Your task to perform on an android device: change the clock display to analog Image 0: 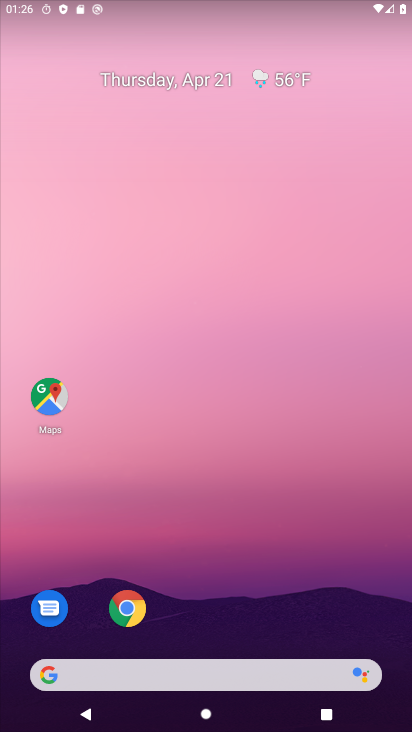
Step 0: drag from (286, 629) to (226, 52)
Your task to perform on an android device: change the clock display to analog Image 1: 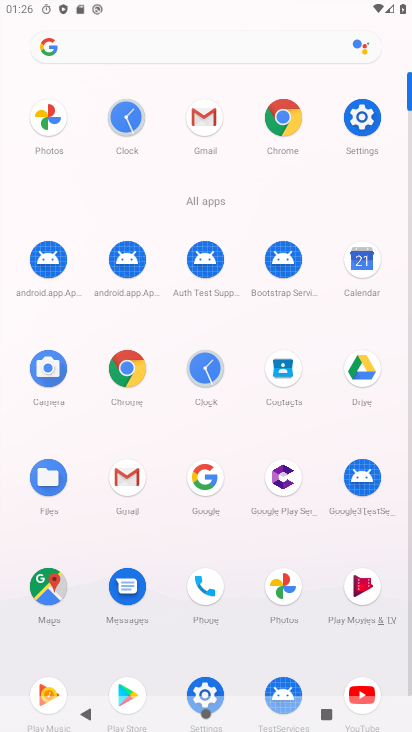
Step 1: click (131, 119)
Your task to perform on an android device: change the clock display to analog Image 2: 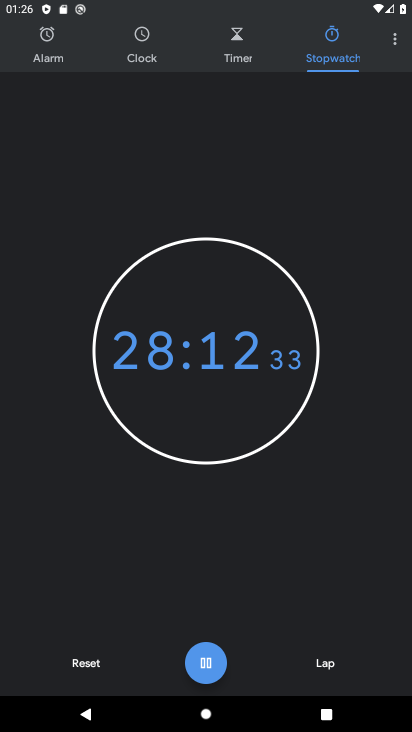
Step 2: click (392, 42)
Your task to perform on an android device: change the clock display to analog Image 3: 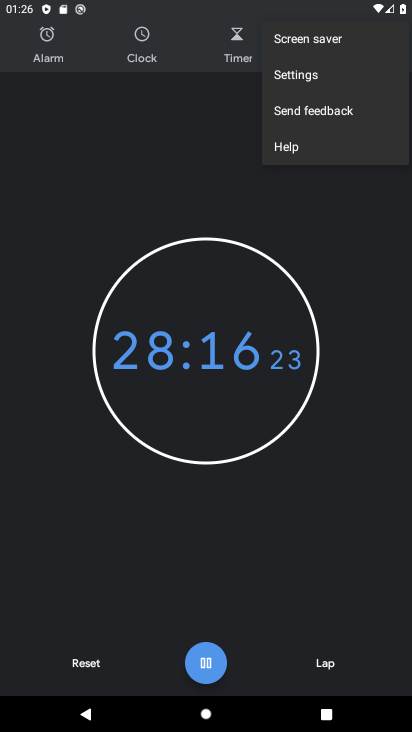
Step 3: click (292, 84)
Your task to perform on an android device: change the clock display to analog Image 4: 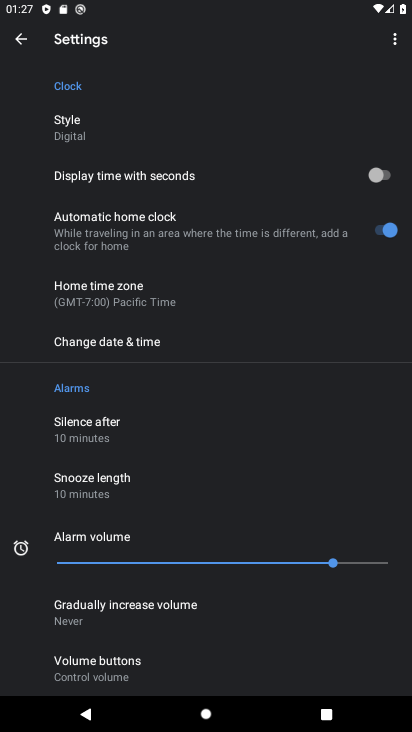
Step 4: click (78, 144)
Your task to perform on an android device: change the clock display to analog Image 5: 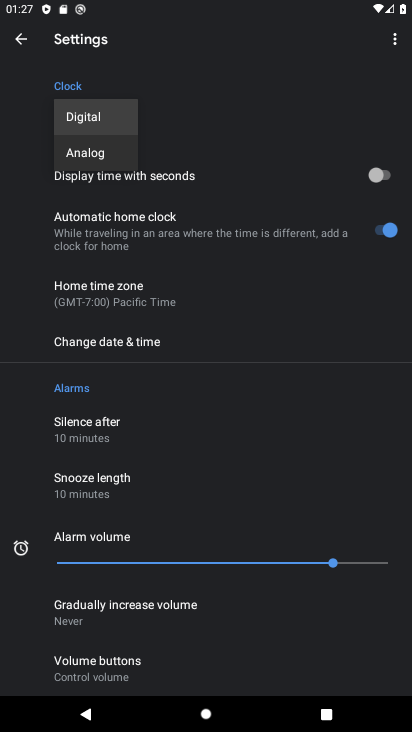
Step 5: click (94, 157)
Your task to perform on an android device: change the clock display to analog Image 6: 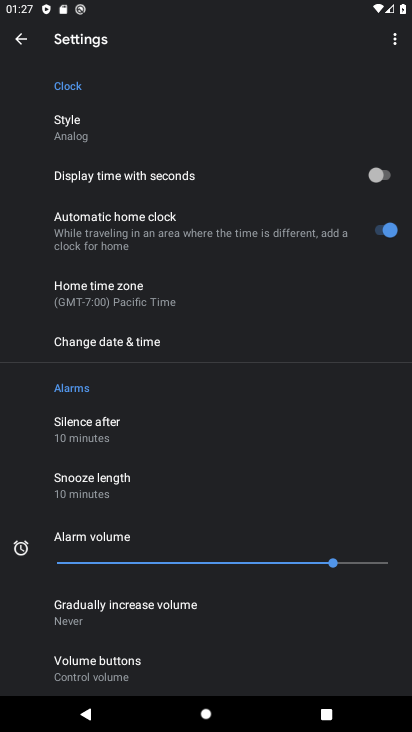
Step 6: task complete